Your task to perform on an android device: toggle pop-ups in chrome Image 0: 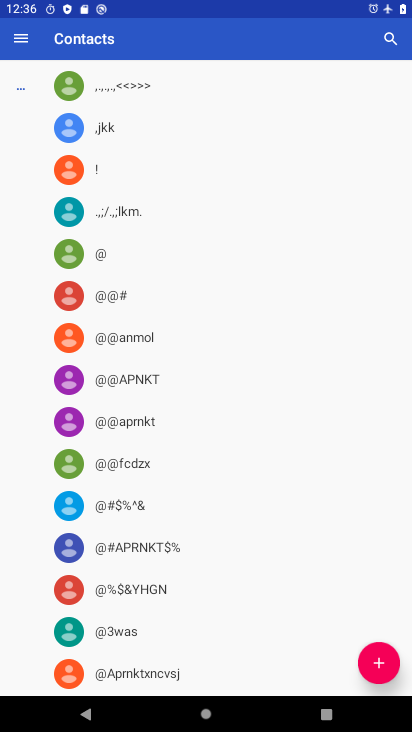
Step 0: press back button
Your task to perform on an android device: toggle pop-ups in chrome Image 1: 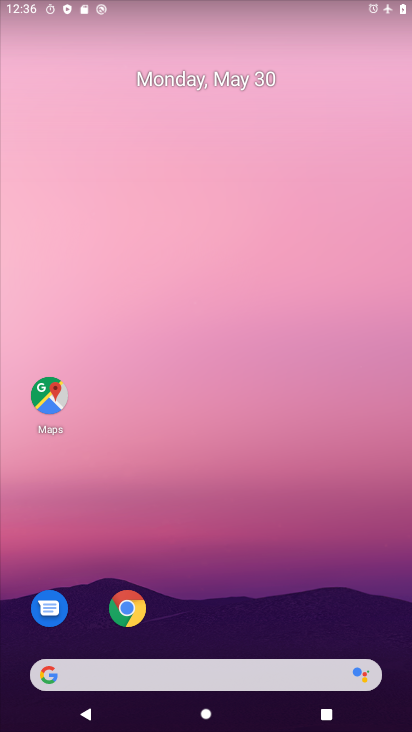
Step 1: click (118, 612)
Your task to perform on an android device: toggle pop-ups in chrome Image 2: 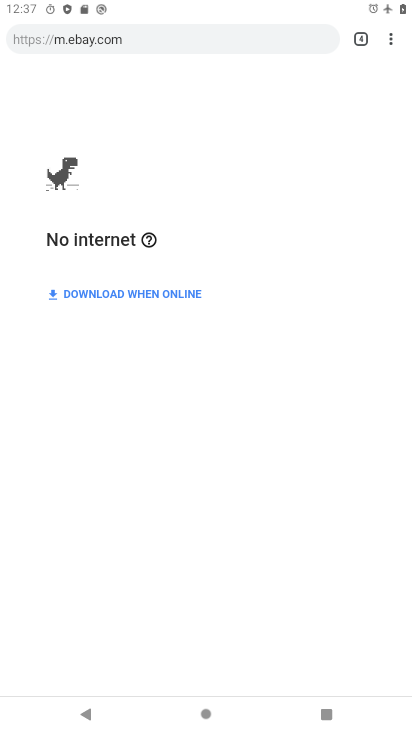
Step 2: click (392, 38)
Your task to perform on an android device: toggle pop-ups in chrome Image 3: 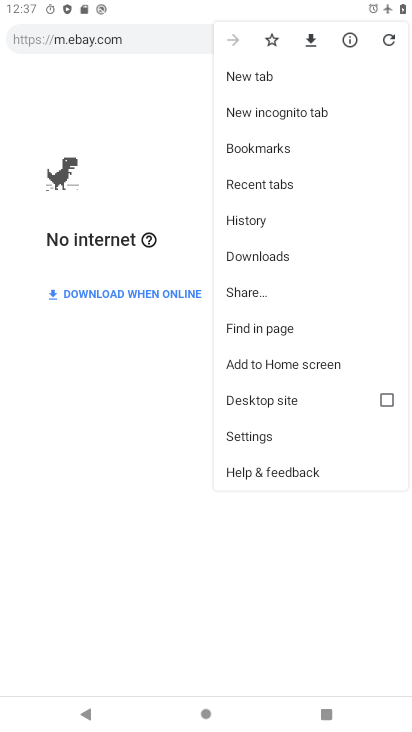
Step 3: click (249, 435)
Your task to perform on an android device: toggle pop-ups in chrome Image 4: 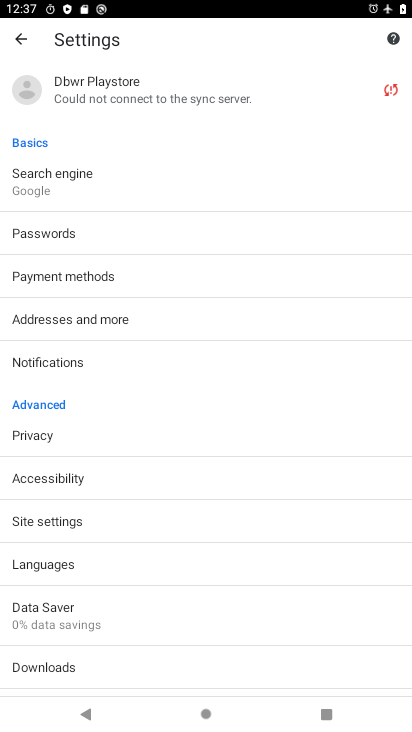
Step 4: click (39, 526)
Your task to perform on an android device: toggle pop-ups in chrome Image 5: 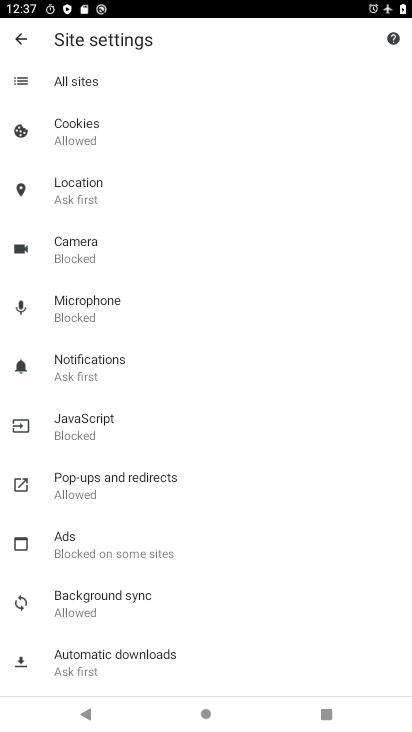
Step 5: click (84, 489)
Your task to perform on an android device: toggle pop-ups in chrome Image 6: 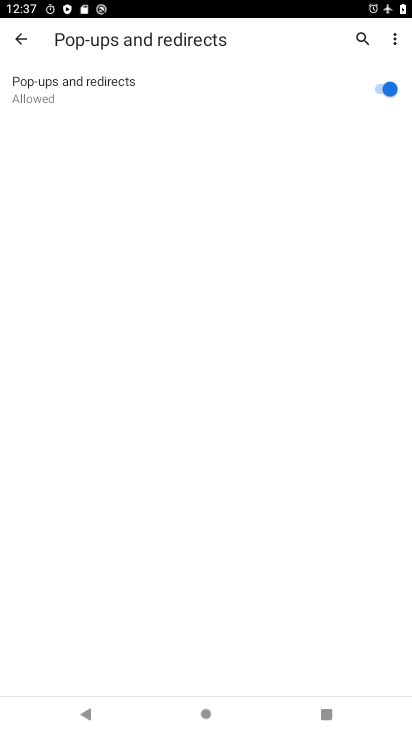
Step 6: click (389, 88)
Your task to perform on an android device: toggle pop-ups in chrome Image 7: 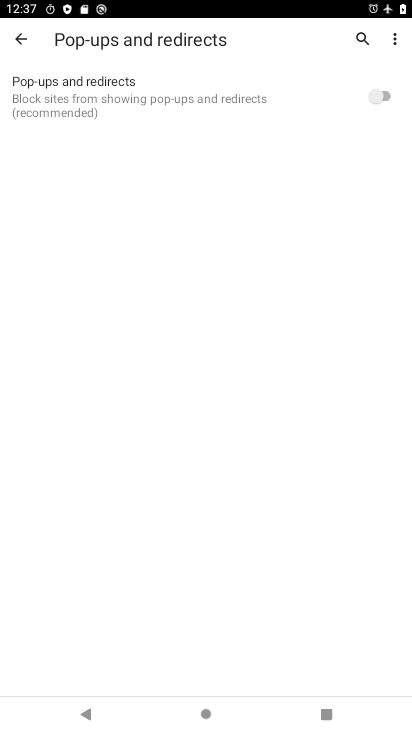
Step 7: task complete